Your task to perform on an android device: Go to Android settings Image 0: 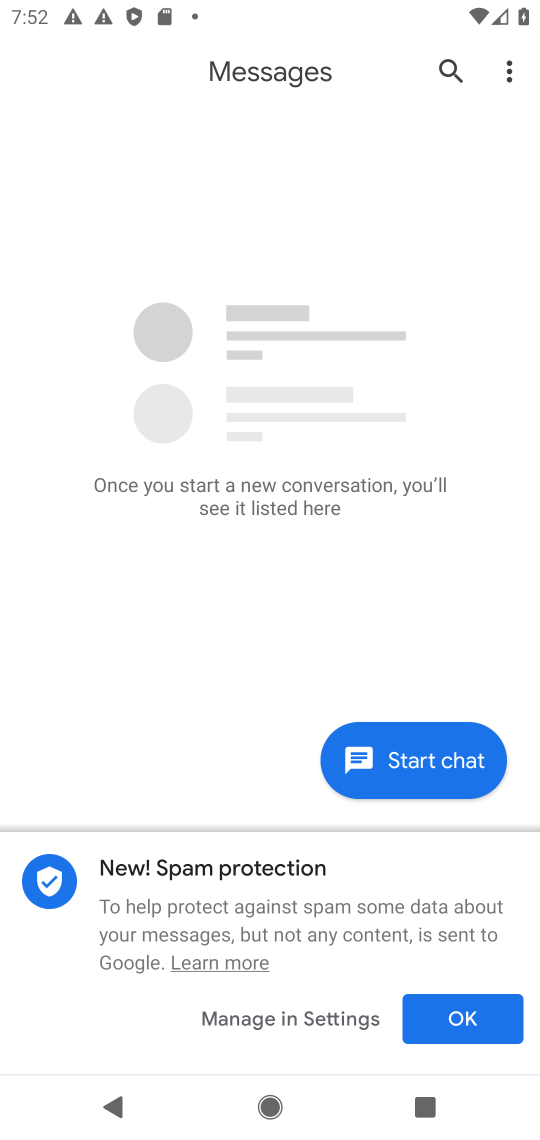
Step 0: press home button
Your task to perform on an android device: Go to Android settings Image 1: 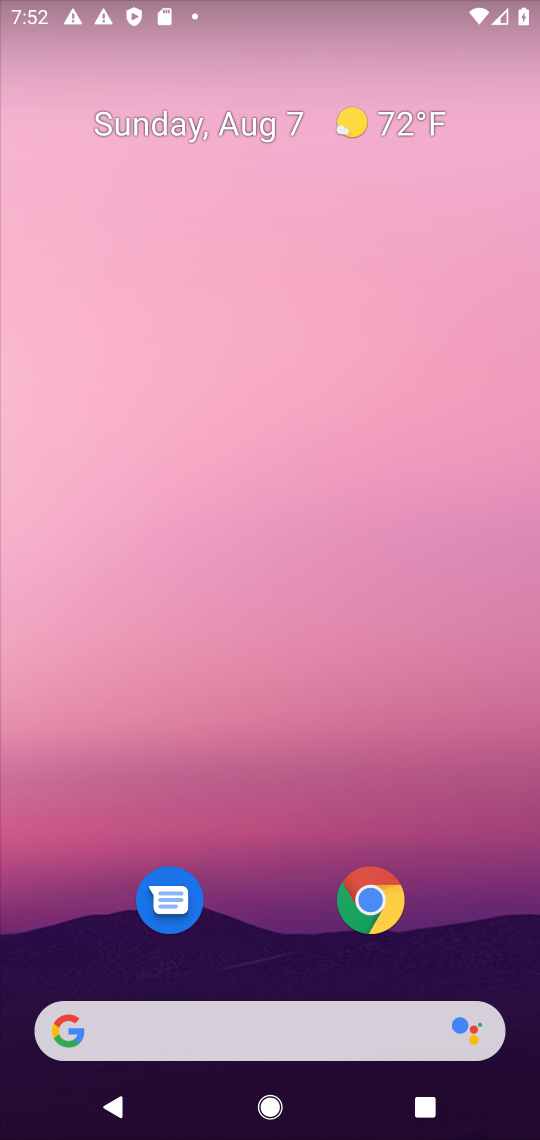
Step 1: drag from (223, 1035) to (382, 85)
Your task to perform on an android device: Go to Android settings Image 2: 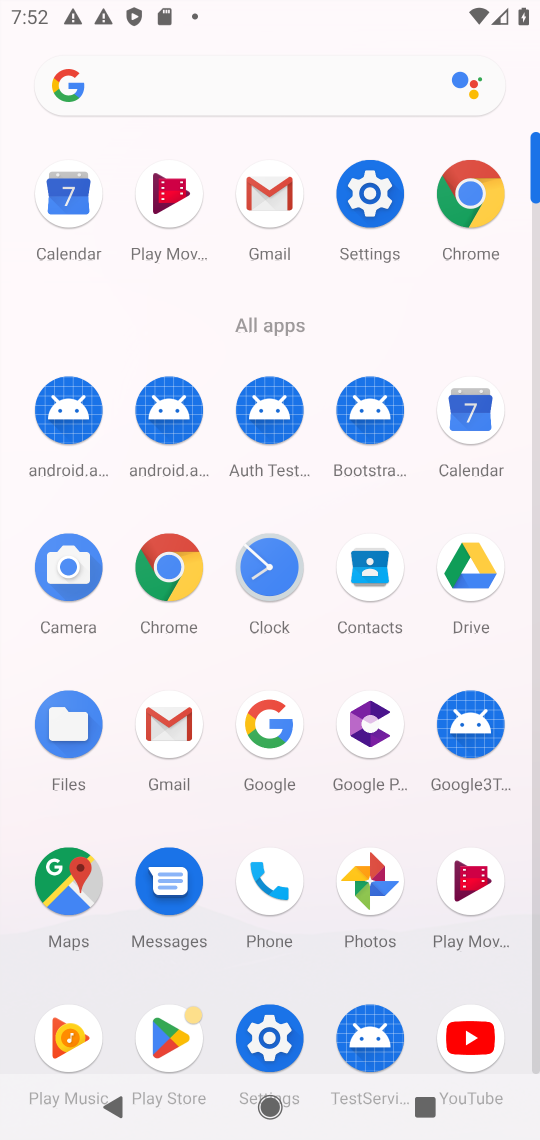
Step 2: click (363, 204)
Your task to perform on an android device: Go to Android settings Image 3: 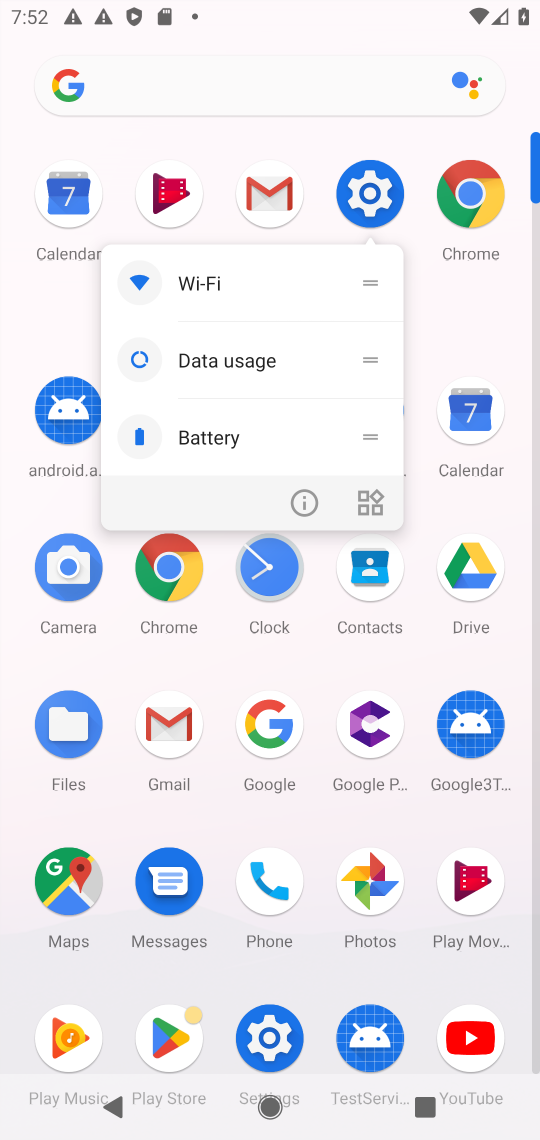
Step 3: click (375, 196)
Your task to perform on an android device: Go to Android settings Image 4: 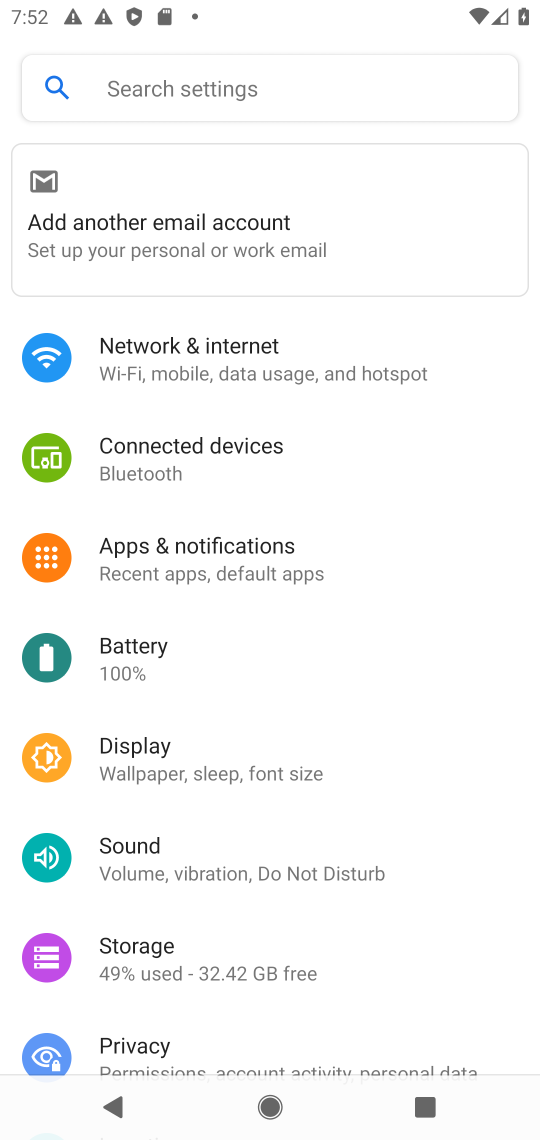
Step 4: task complete